Your task to perform on an android device: When is my next meeting? Image 0: 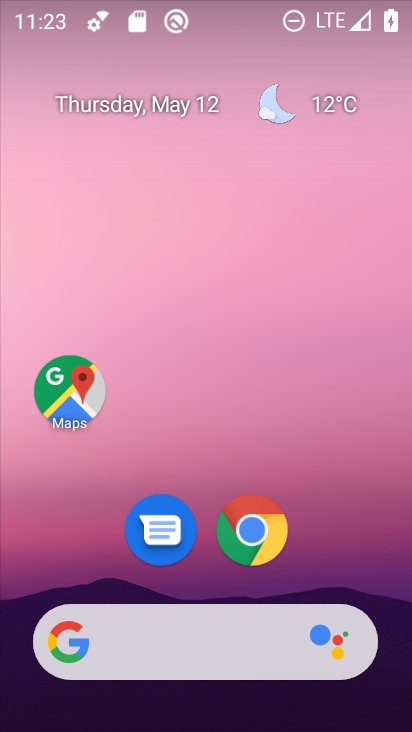
Step 0: drag from (238, 655) to (347, 216)
Your task to perform on an android device: When is my next meeting? Image 1: 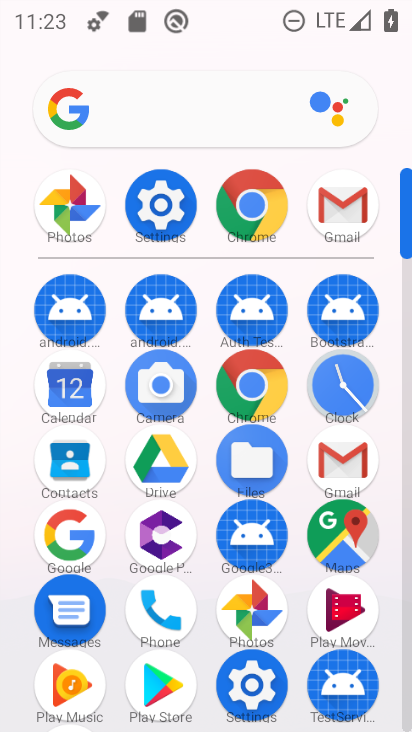
Step 1: click (67, 384)
Your task to perform on an android device: When is my next meeting? Image 2: 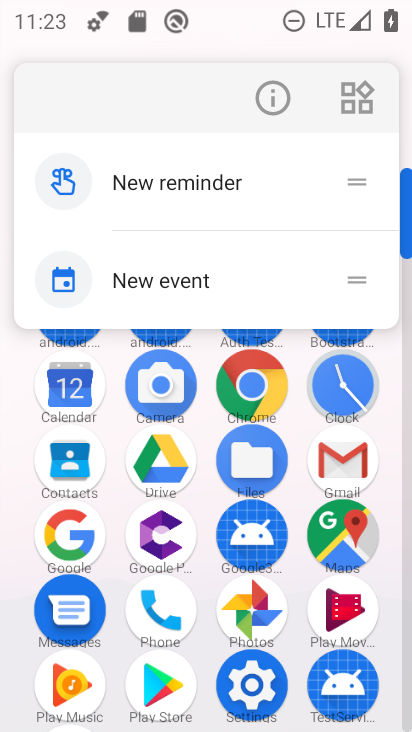
Step 2: click (69, 396)
Your task to perform on an android device: When is my next meeting? Image 3: 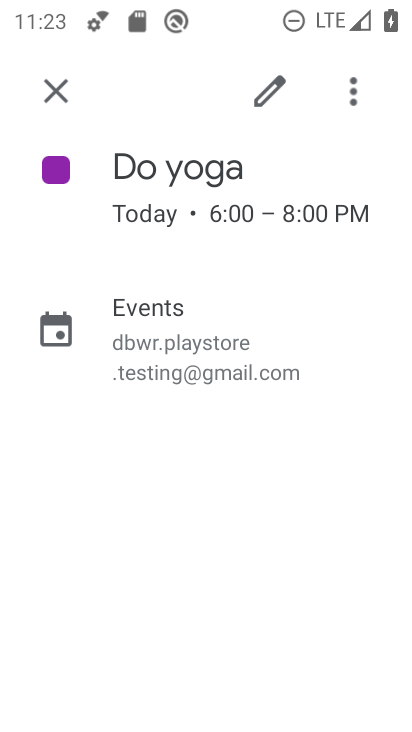
Step 3: click (57, 93)
Your task to perform on an android device: When is my next meeting? Image 4: 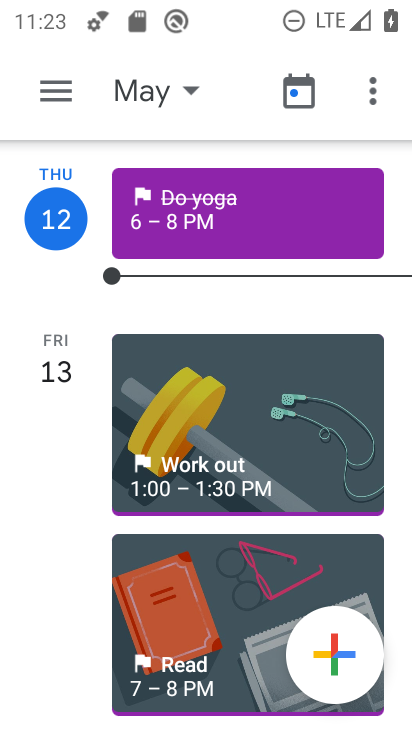
Step 4: click (165, 220)
Your task to perform on an android device: When is my next meeting? Image 5: 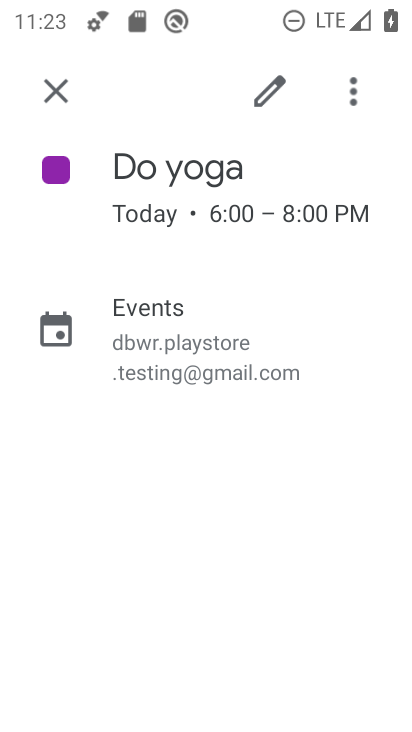
Step 5: task complete